Your task to perform on an android device: uninstall "Viber Messenger" Image 0: 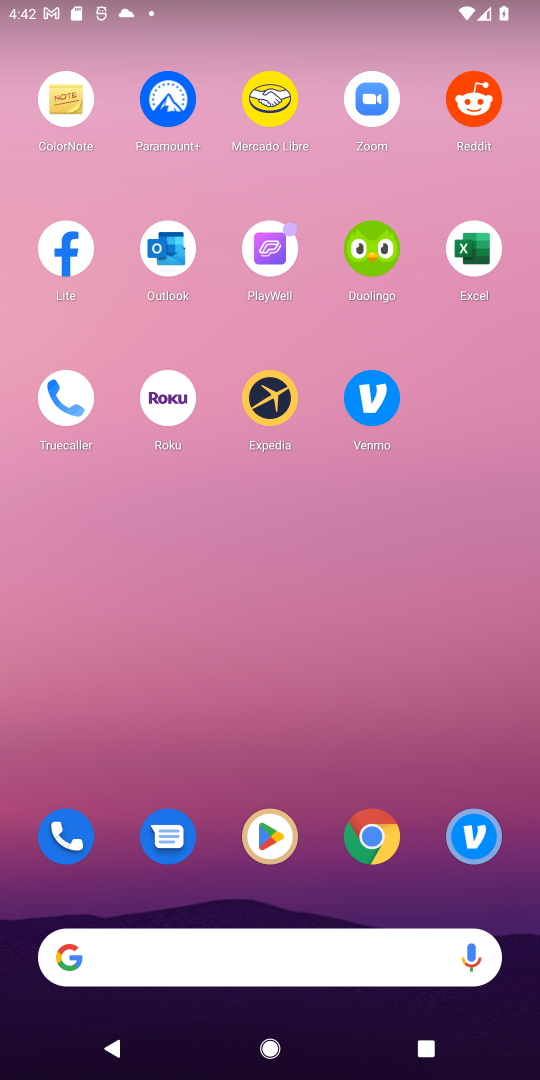
Step 0: drag from (219, 139) to (213, 725)
Your task to perform on an android device: uninstall "Viber Messenger" Image 1: 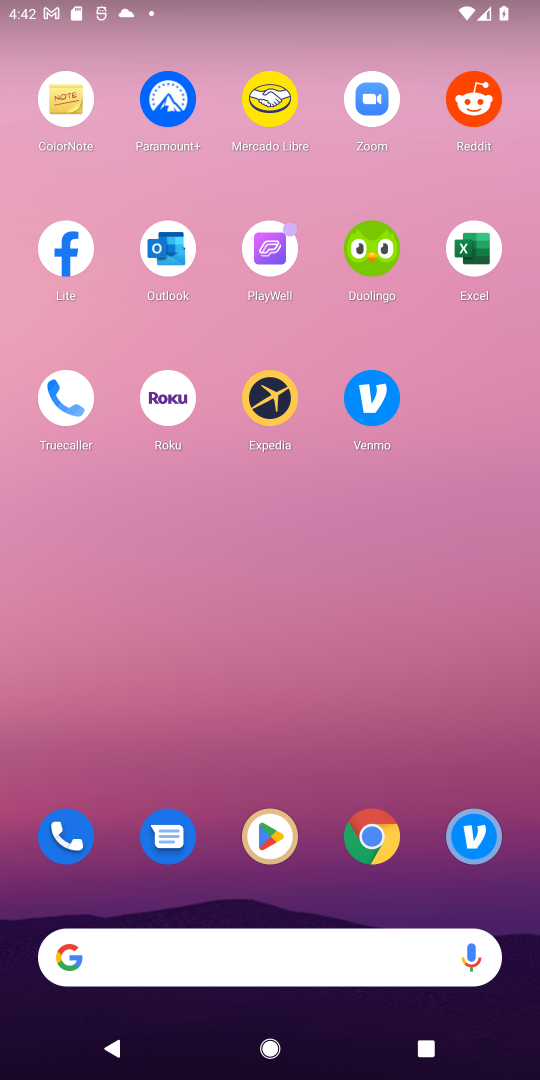
Step 1: drag from (110, 527) to (539, 664)
Your task to perform on an android device: uninstall "Viber Messenger" Image 2: 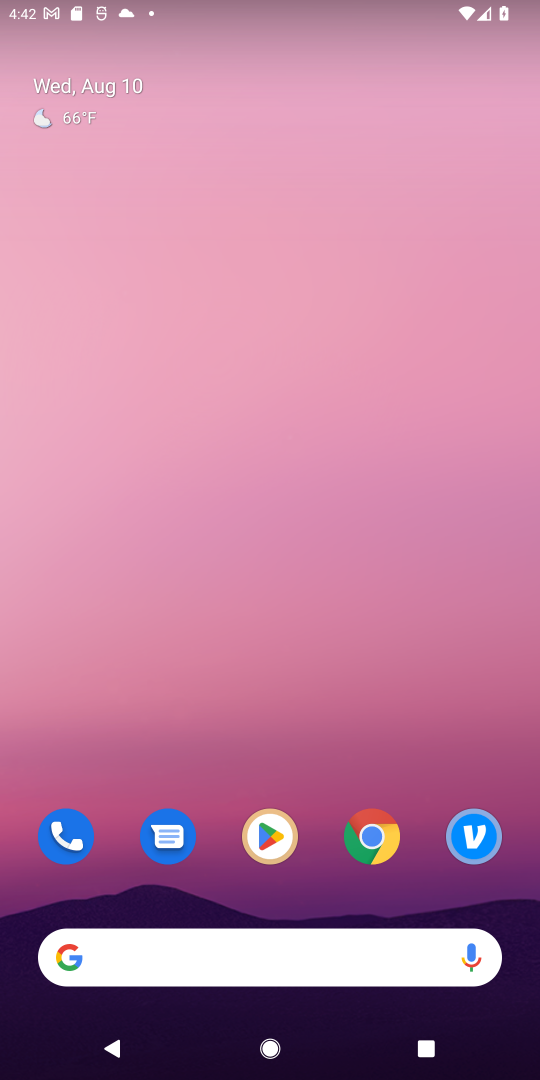
Step 2: drag from (269, 822) to (294, 156)
Your task to perform on an android device: uninstall "Viber Messenger" Image 3: 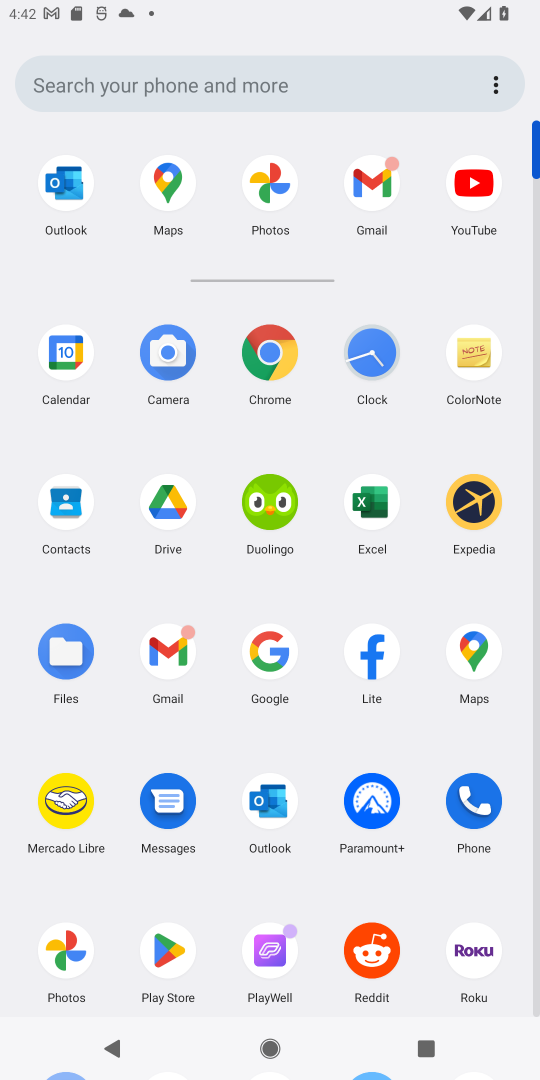
Step 3: click (159, 931)
Your task to perform on an android device: uninstall "Viber Messenger" Image 4: 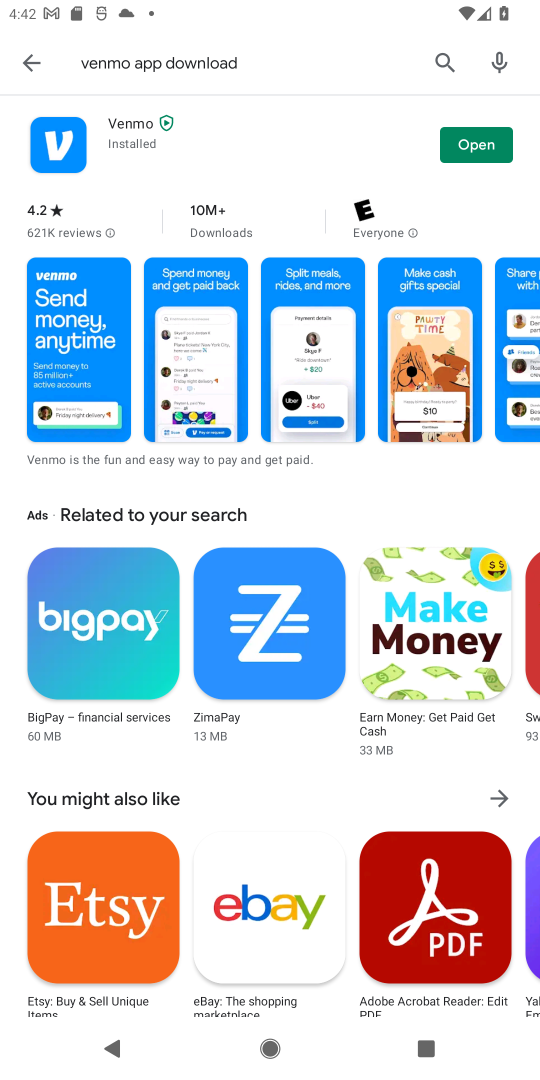
Step 4: click (51, 57)
Your task to perform on an android device: uninstall "Viber Messenger" Image 5: 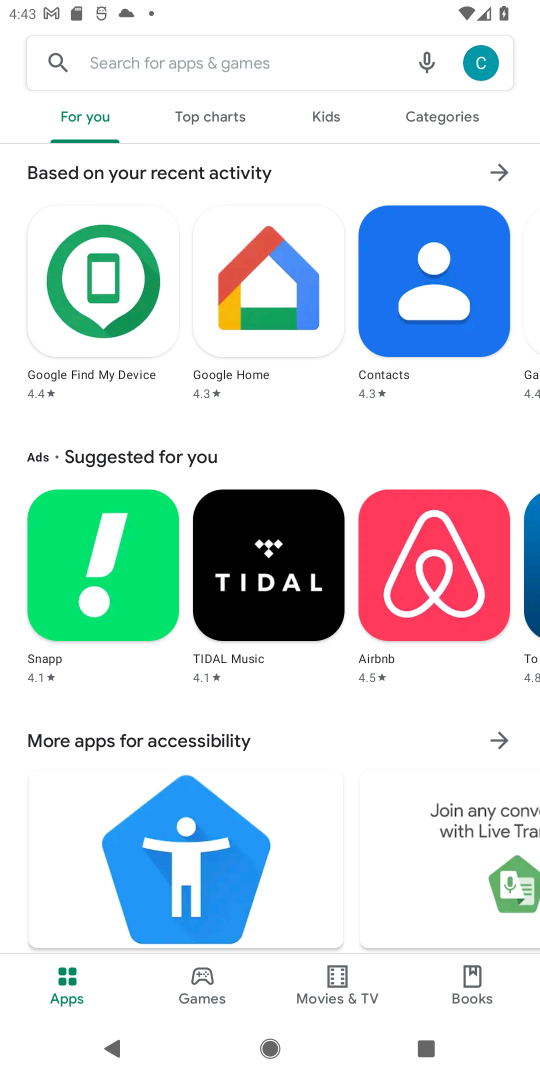
Step 5: click (205, 50)
Your task to perform on an android device: uninstall "Viber Messenger" Image 6: 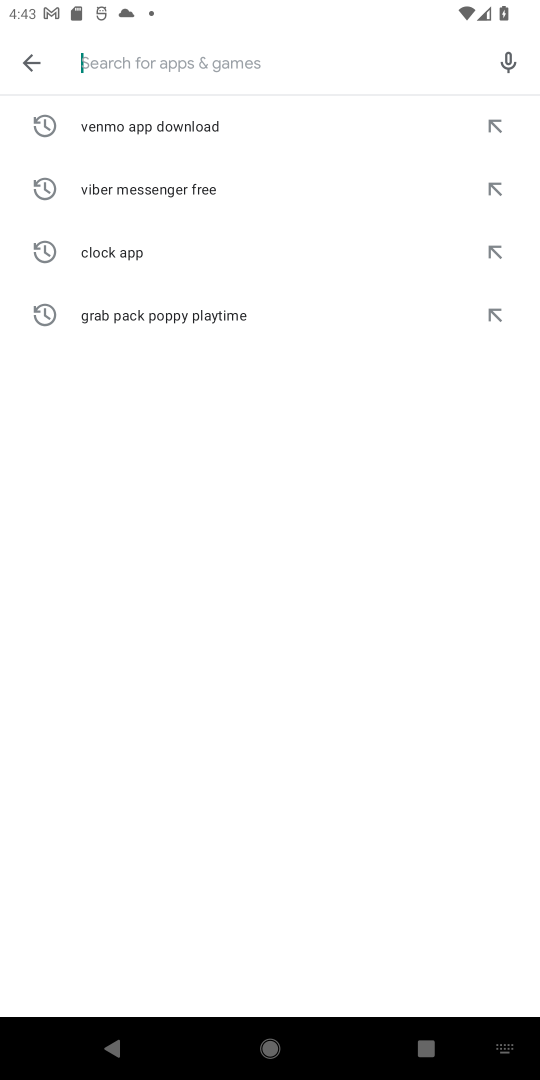
Step 6: click (191, 193)
Your task to perform on an android device: uninstall "Viber Messenger" Image 7: 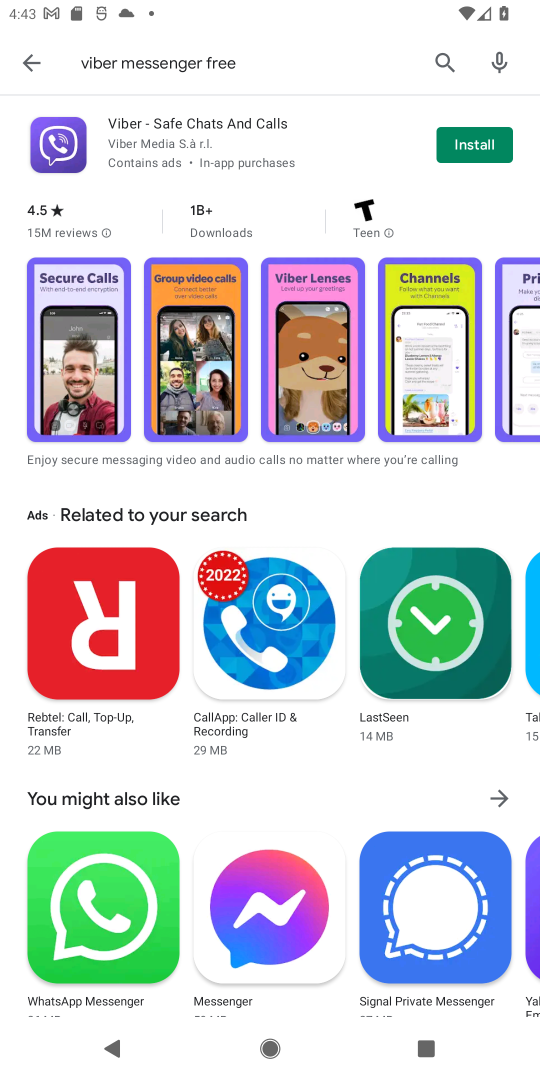
Step 7: task complete